Your task to perform on an android device: turn smart compose on in the gmail app Image 0: 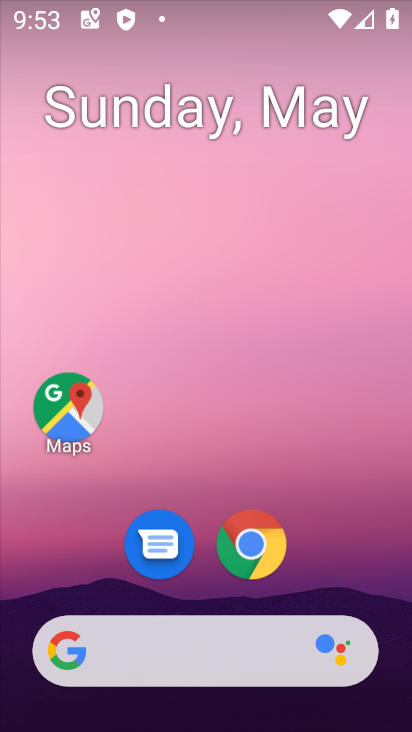
Step 0: drag from (311, 564) to (323, 15)
Your task to perform on an android device: turn smart compose on in the gmail app Image 1: 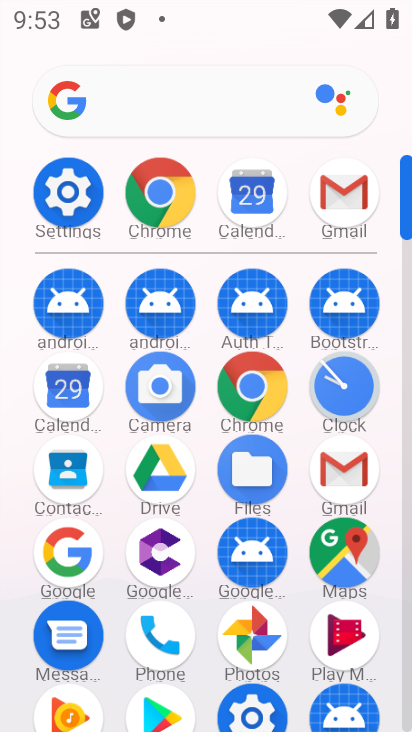
Step 1: click (337, 190)
Your task to perform on an android device: turn smart compose on in the gmail app Image 2: 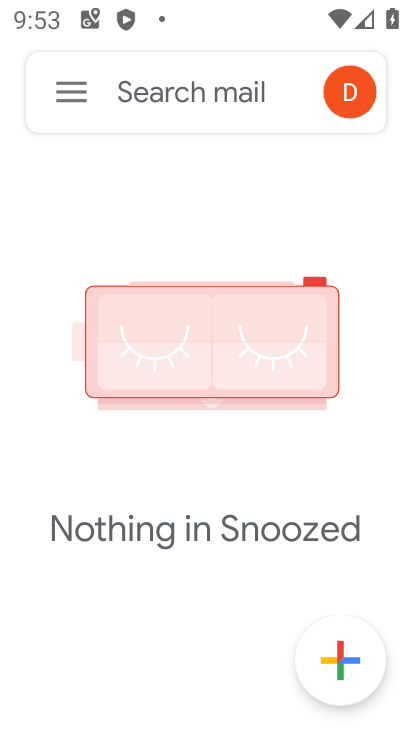
Step 2: click (70, 117)
Your task to perform on an android device: turn smart compose on in the gmail app Image 3: 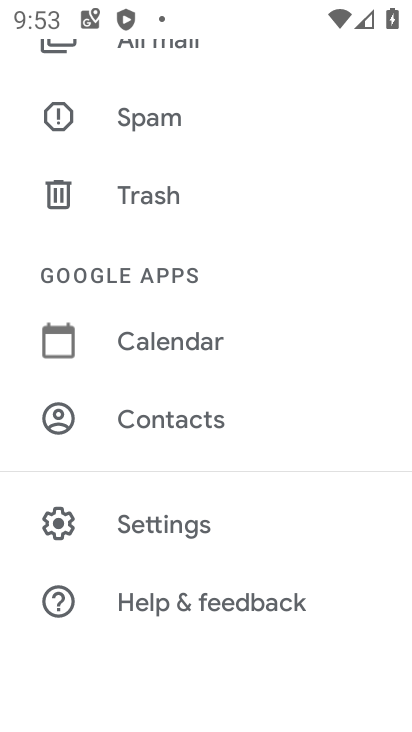
Step 3: click (174, 541)
Your task to perform on an android device: turn smart compose on in the gmail app Image 4: 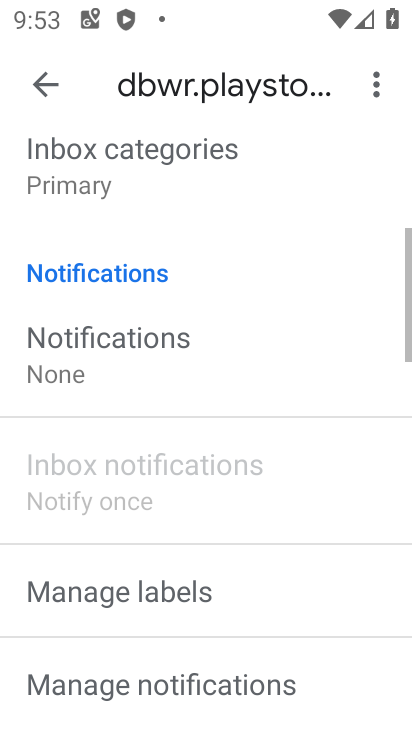
Step 4: drag from (217, 622) to (276, 106)
Your task to perform on an android device: turn smart compose on in the gmail app Image 5: 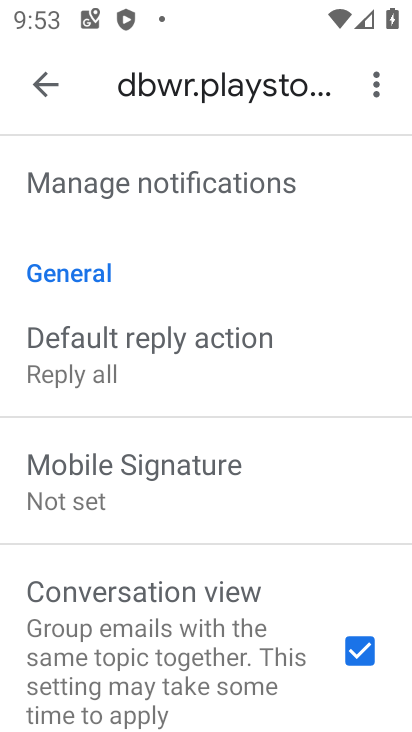
Step 5: drag from (322, 590) to (333, 191)
Your task to perform on an android device: turn smart compose on in the gmail app Image 6: 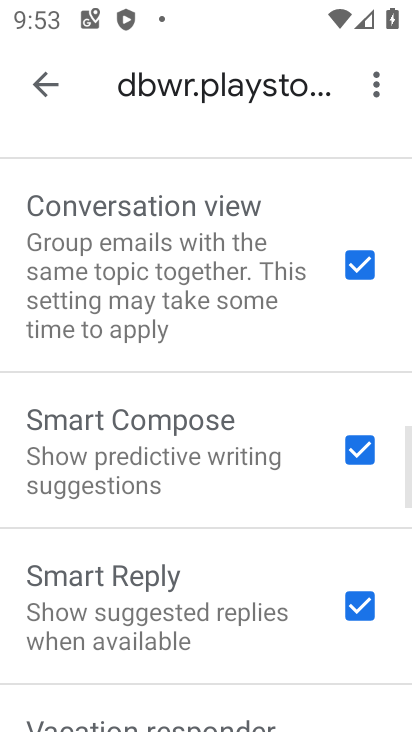
Step 6: drag from (235, 591) to (321, 177)
Your task to perform on an android device: turn smart compose on in the gmail app Image 7: 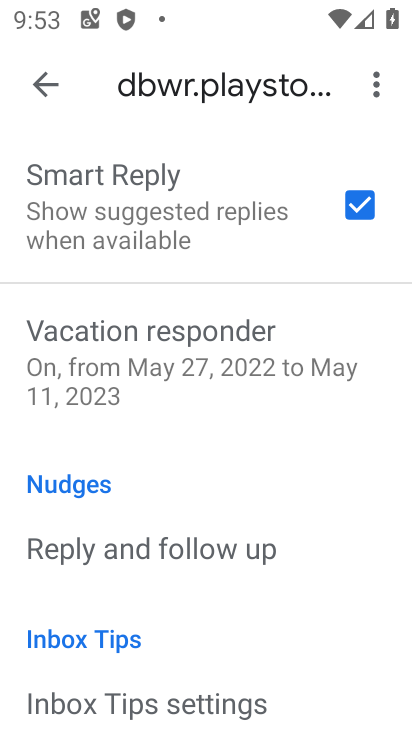
Step 7: drag from (293, 269) to (371, 729)
Your task to perform on an android device: turn smart compose on in the gmail app Image 8: 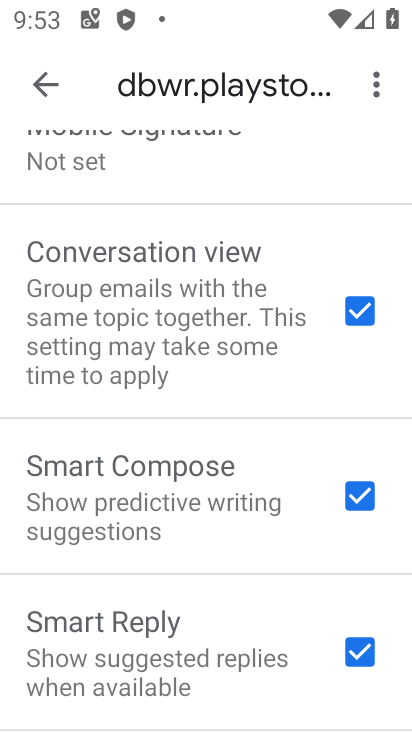
Step 8: click (358, 505)
Your task to perform on an android device: turn smart compose on in the gmail app Image 9: 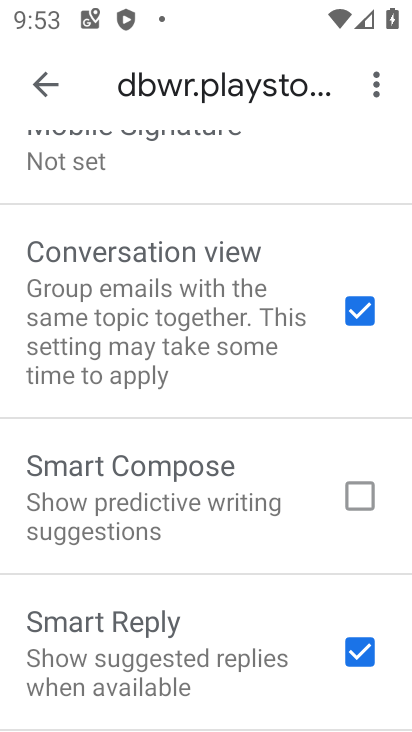
Step 9: task complete